Your task to perform on an android device: See recent photos Image 0: 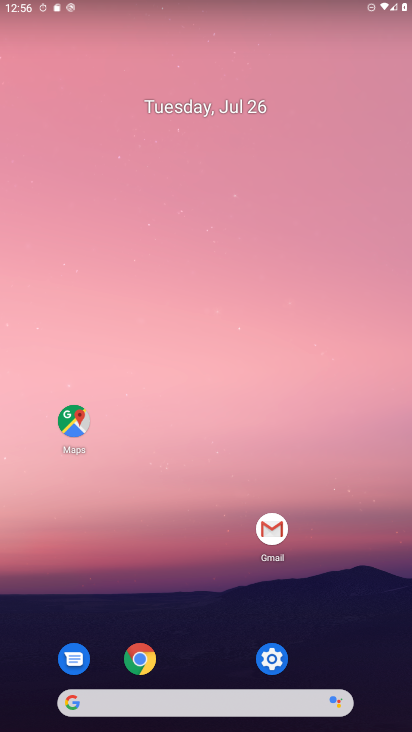
Step 0: drag from (269, 617) to (281, 152)
Your task to perform on an android device: See recent photos Image 1: 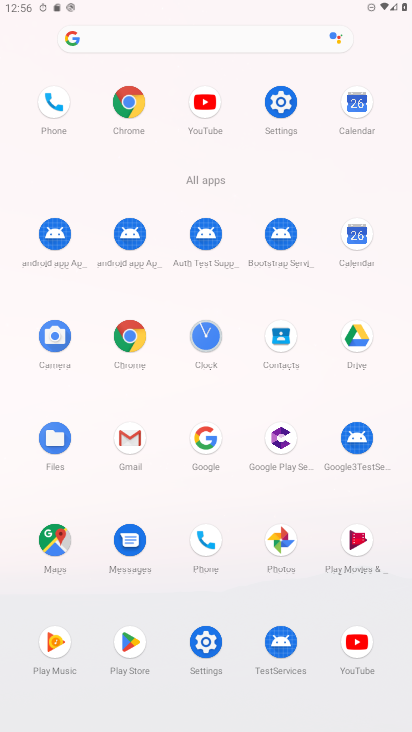
Step 1: click (268, 542)
Your task to perform on an android device: See recent photos Image 2: 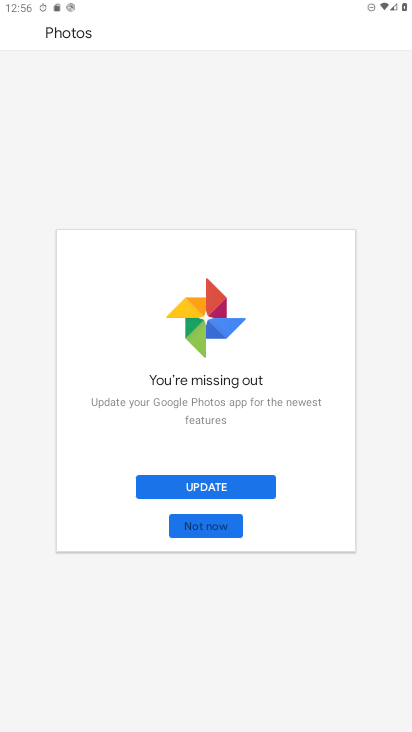
Step 2: click (218, 498)
Your task to perform on an android device: See recent photos Image 3: 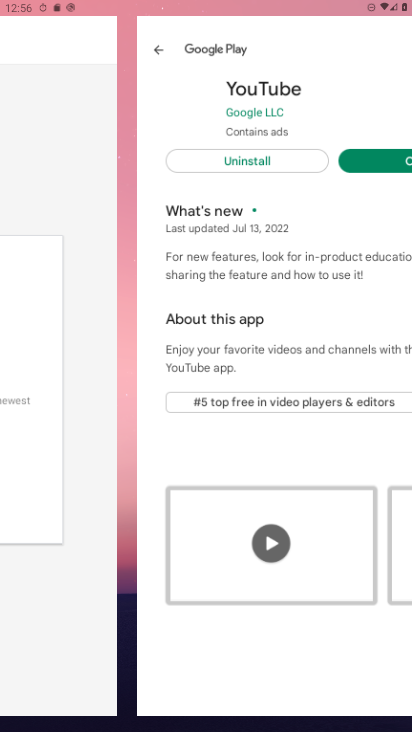
Step 3: click (223, 492)
Your task to perform on an android device: See recent photos Image 4: 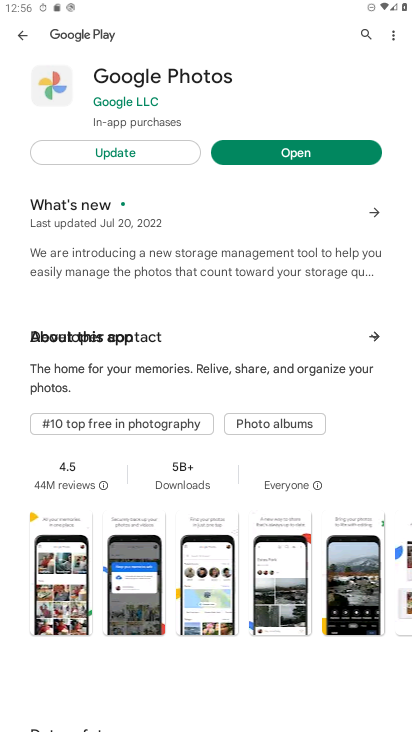
Step 4: click (112, 152)
Your task to perform on an android device: See recent photos Image 5: 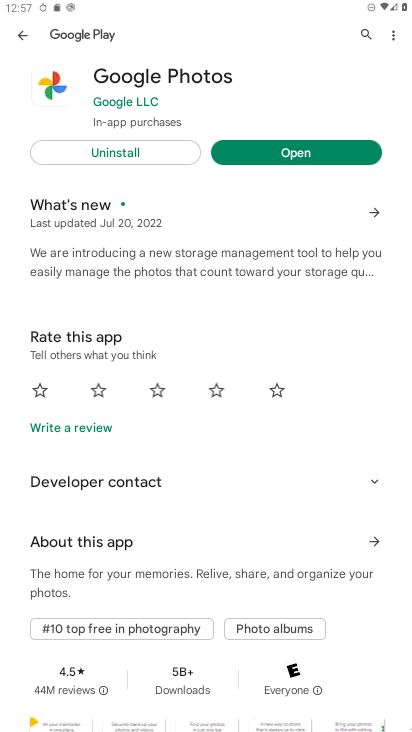
Step 5: click (280, 163)
Your task to perform on an android device: See recent photos Image 6: 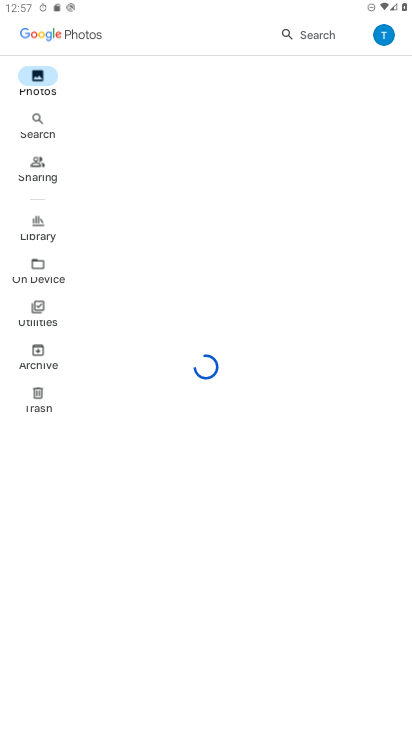
Step 6: task complete